Your task to perform on an android device: turn off improve location accuracy Image 0: 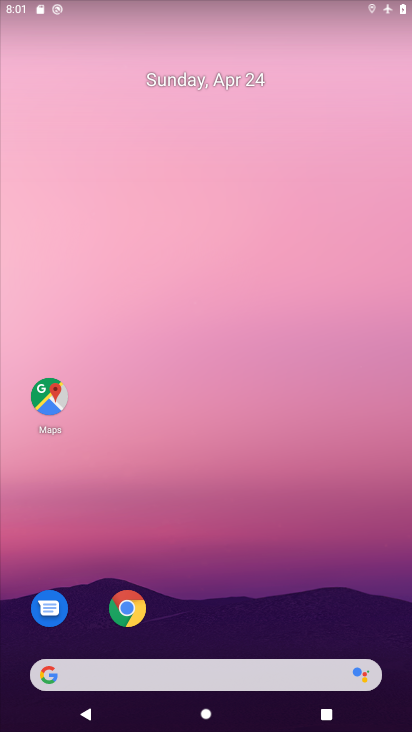
Step 0: drag from (176, 544) to (257, 60)
Your task to perform on an android device: turn off improve location accuracy Image 1: 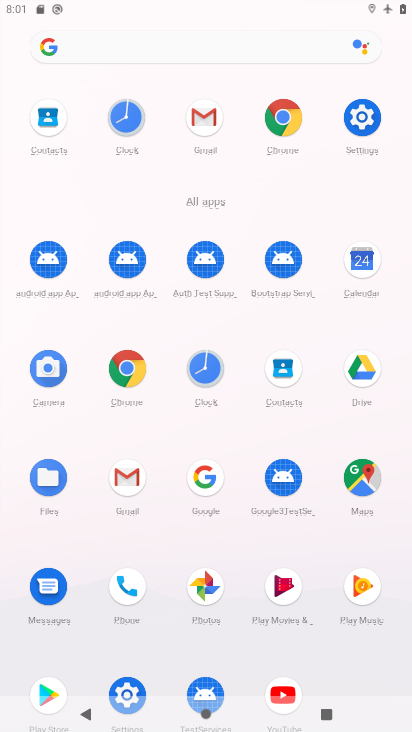
Step 1: click (123, 703)
Your task to perform on an android device: turn off improve location accuracy Image 2: 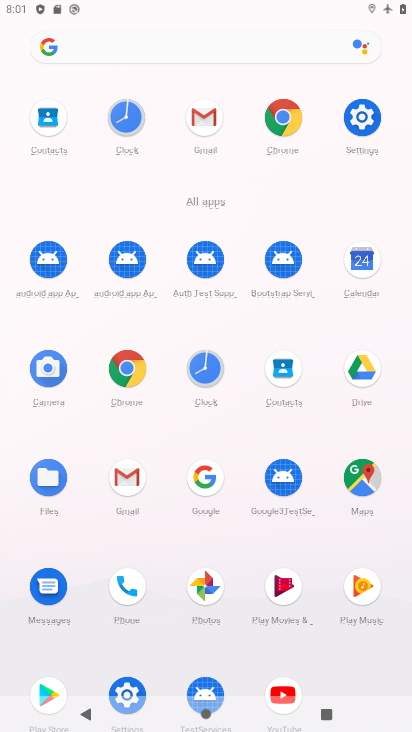
Step 2: click (135, 689)
Your task to perform on an android device: turn off improve location accuracy Image 3: 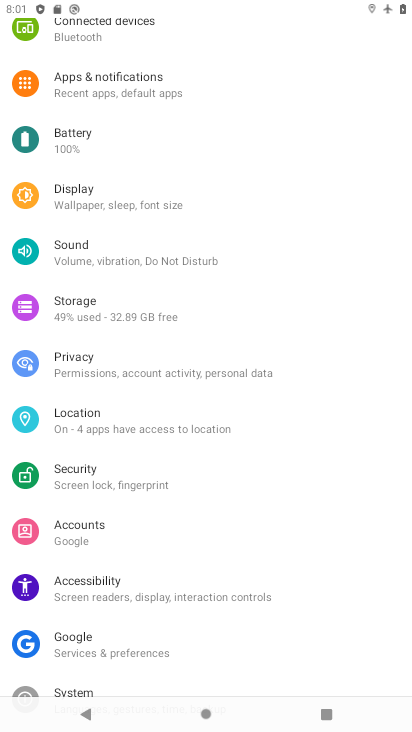
Step 3: click (70, 415)
Your task to perform on an android device: turn off improve location accuracy Image 4: 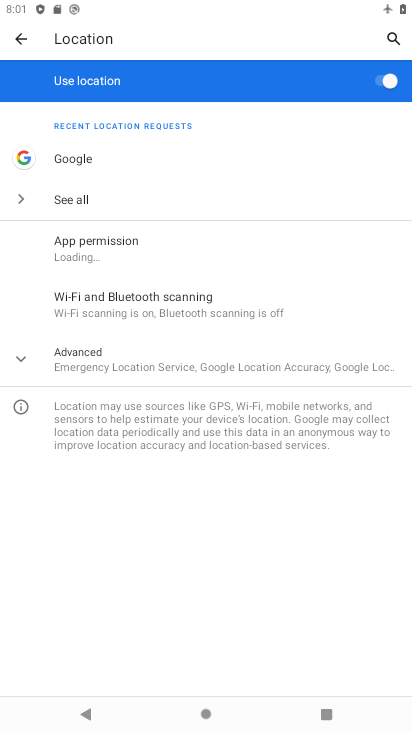
Step 4: click (163, 364)
Your task to perform on an android device: turn off improve location accuracy Image 5: 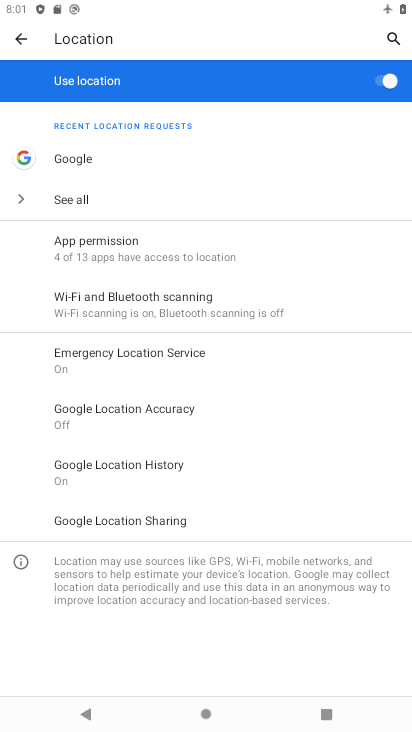
Step 5: click (174, 423)
Your task to perform on an android device: turn off improve location accuracy Image 6: 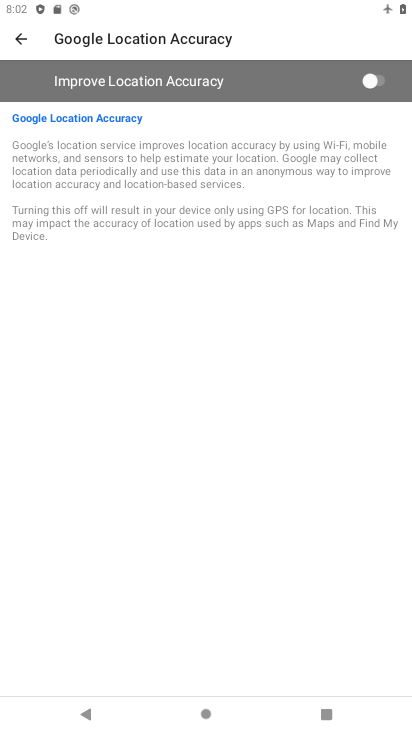
Step 6: task complete